Your task to perform on an android device: turn on the 12-hour format for clock Image 0: 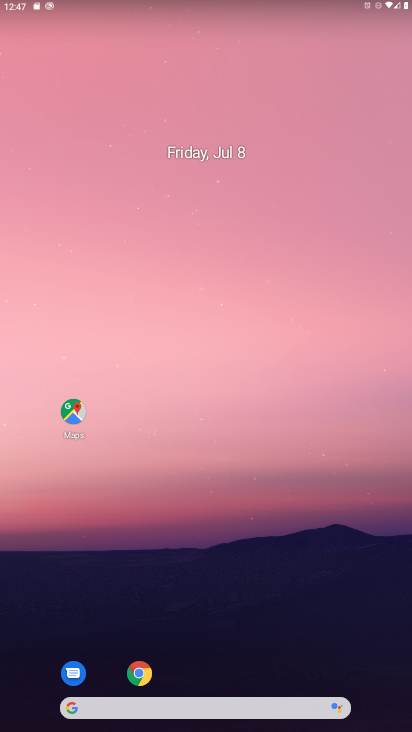
Step 0: drag from (388, 625) to (366, 195)
Your task to perform on an android device: turn on the 12-hour format for clock Image 1: 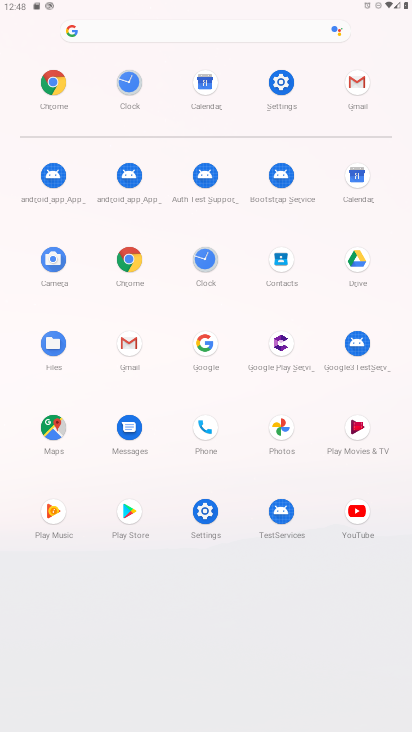
Step 1: click (204, 267)
Your task to perform on an android device: turn on the 12-hour format for clock Image 2: 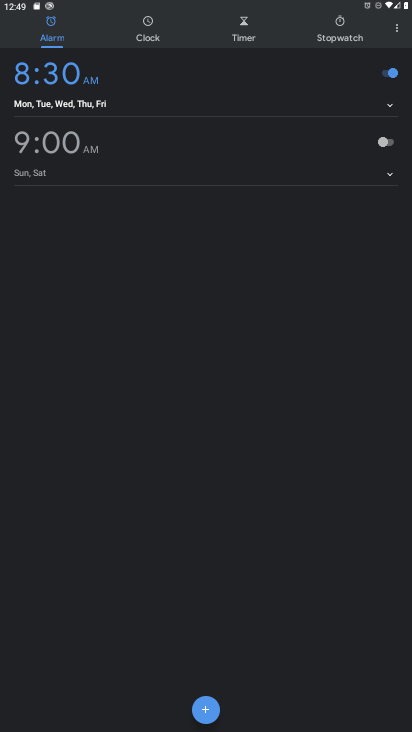
Step 2: click (396, 31)
Your task to perform on an android device: turn on the 12-hour format for clock Image 3: 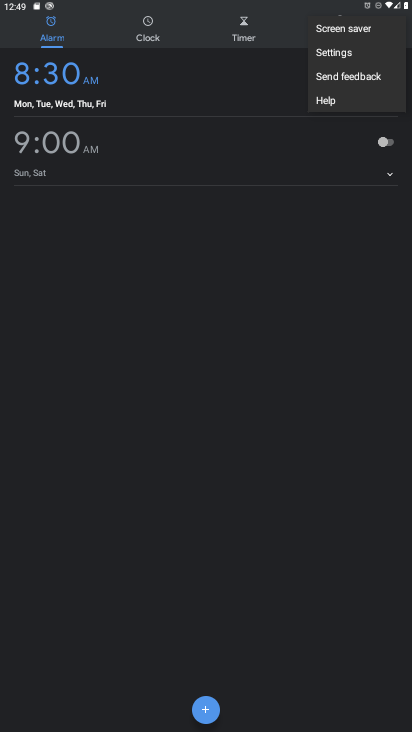
Step 3: click (350, 54)
Your task to perform on an android device: turn on the 12-hour format for clock Image 4: 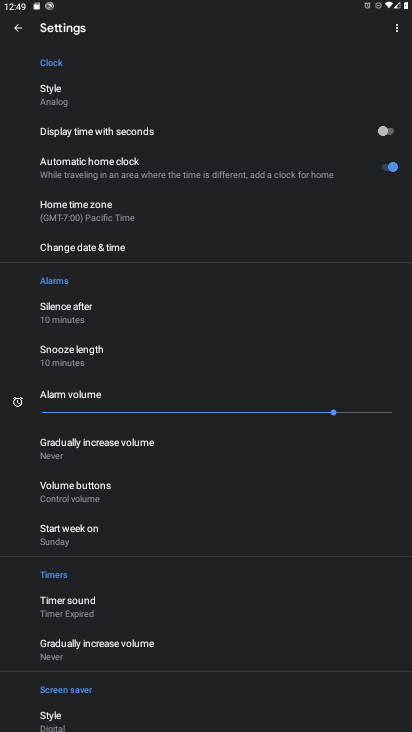
Step 4: press back button
Your task to perform on an android device: turn on the 12-hour format for clock Image 5: 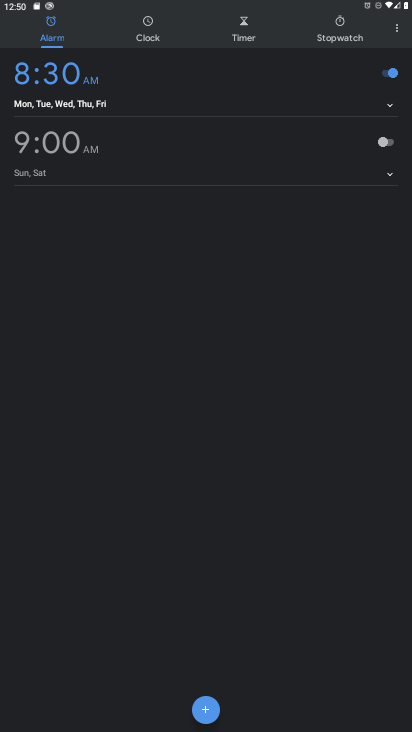
Step 5: click (396, 26)
Your task to perform on an android device: turn on the 12-hour format for clock Image 6: 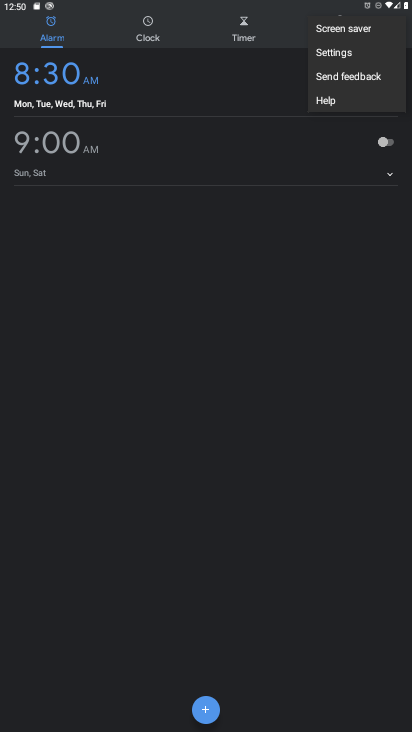
Step 6: click (331, 57)
Your task to perform on an android device: turn on the 12-hour format for clock Image 7: 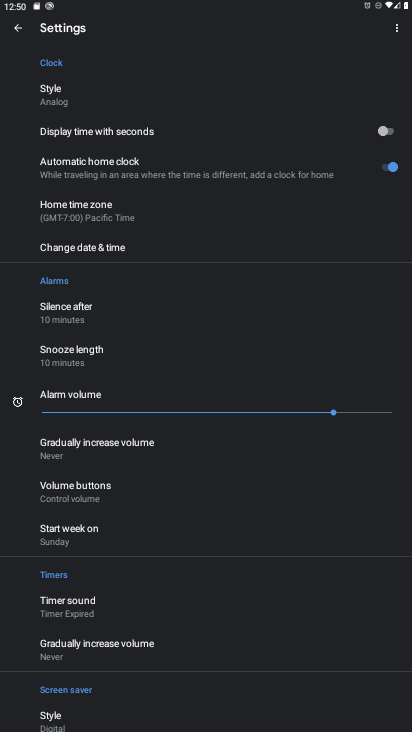
Step 7: click (81, 250)
Your task to perform on an android device: turn on the 12-hour format for clock Image 8: 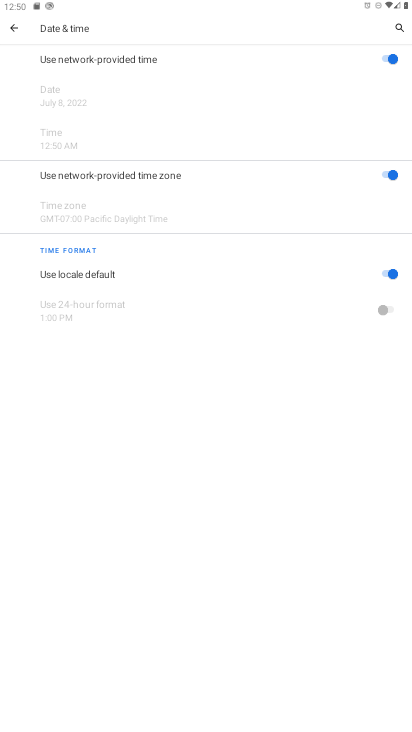
Step 8: task complete